Your task to perform on an android device: Open calendar and show me the third week of next month Image 0: 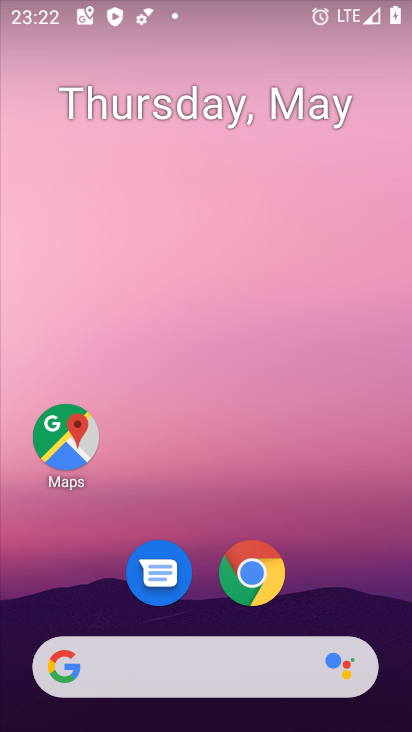
Step 0: drag from (219, 619) to (209, 171)
Your task to perform on an android device: Open calendar and show me the third week of next month Image 1: 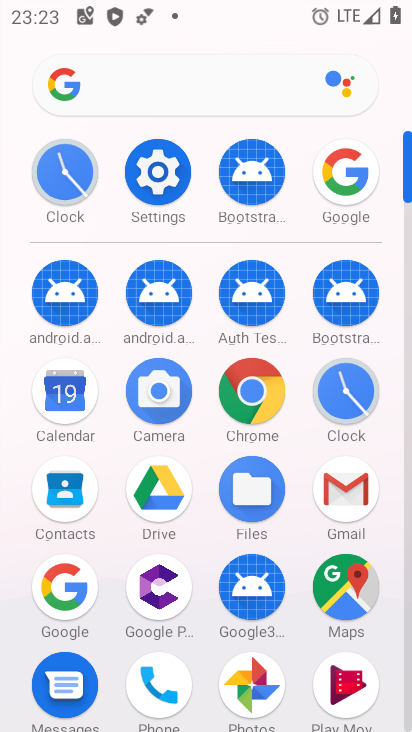
Step 1: click (49, 416)
Your task to perform on an android device: Open calendar and show me the third week of next month Image 2: 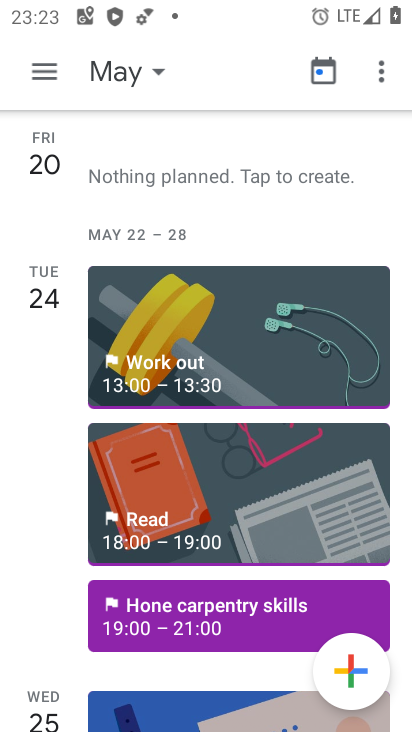
Step 2: click (151, 81)
Your task to perform on an android device: Open calendar and show me the third week of next month Image 3: 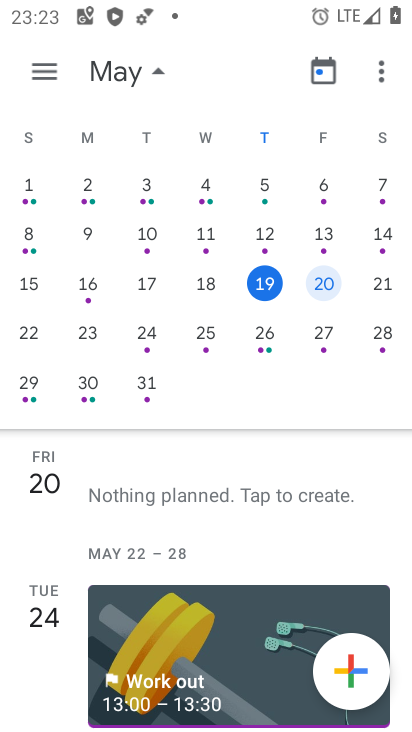
Step 3: drag from (312, 252) to (19, 279)
Your task to perform on an android device: Open calendar and show me the third week of next month Image 4: 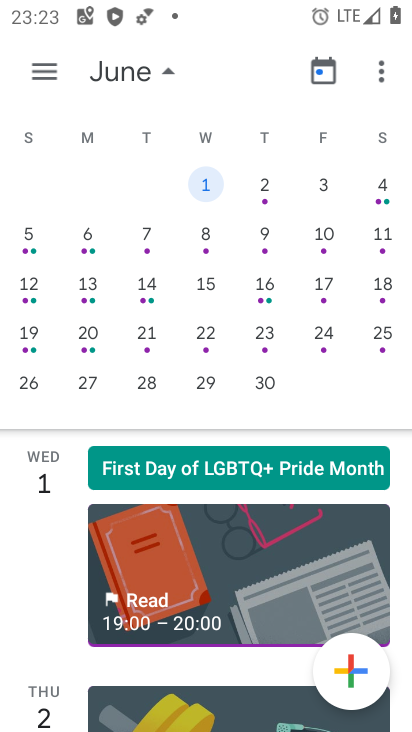
Step 4: click (30, 290)
Your task to perform on an android device: Open calendar and show me the third week of next month Image 5: 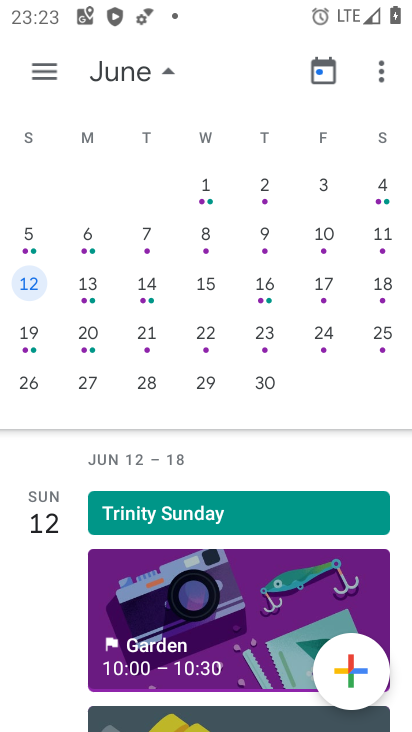
Step 5: task complete